Your task to perform on an android device: check data usage Image 0: 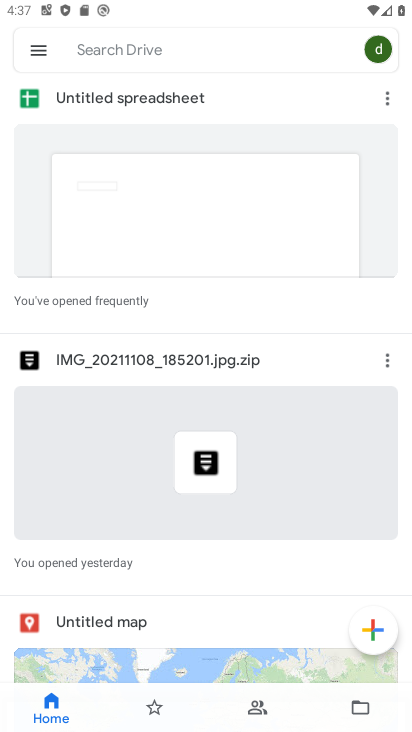
Step 0: press back button
Your task to perform on an android device: check data usage Image 1: 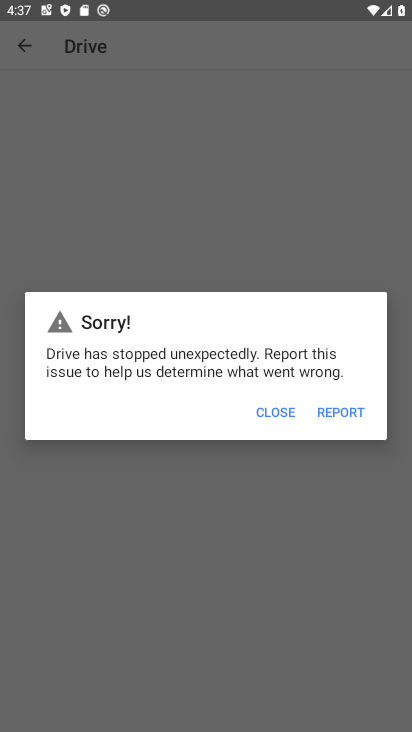
Step 1: press back button
Your task to perform on an android device: check data usage Image 2: 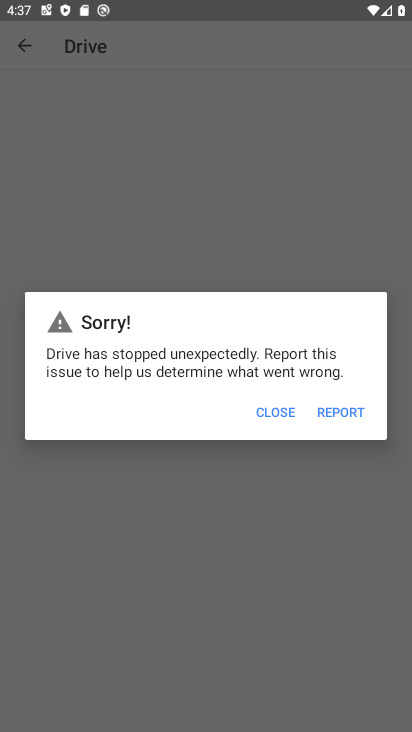
Step 2: press home button
Your task to perform on an android device: check data usage Image 3: 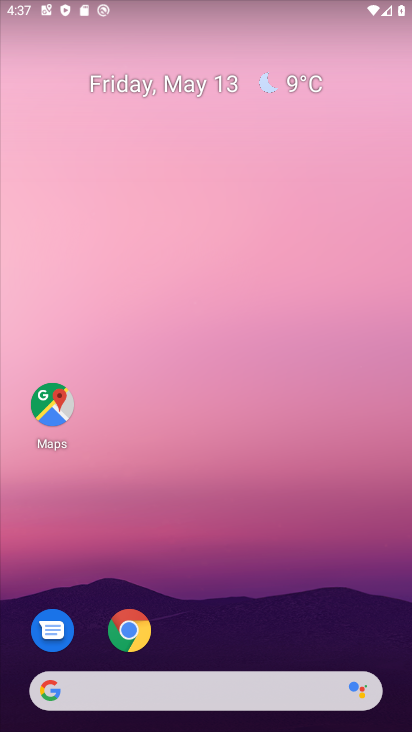
Step 3: drag from (283, 586) to (209, 105)
Your task to perform on an android device: check data usage Image 4: 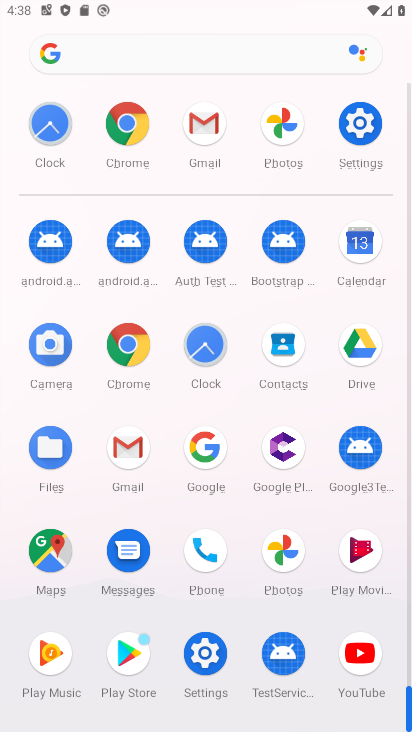
Step 4: click (203, 652)
Your task to perform on an android device: check data usage Image 5: 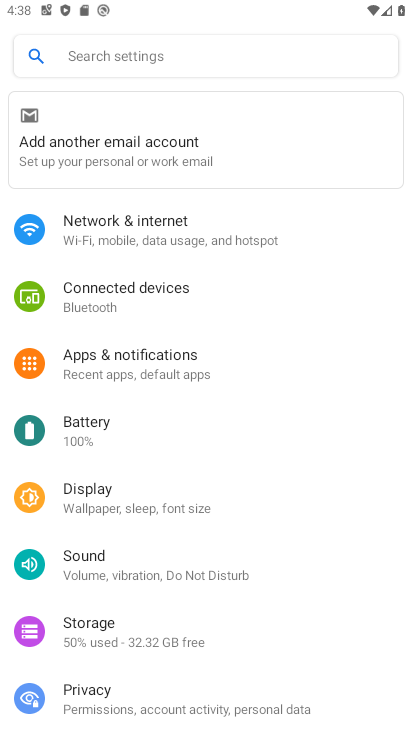
Step 5: click (172, 230)
Your task to perform on an android device: check data usage Image 6: 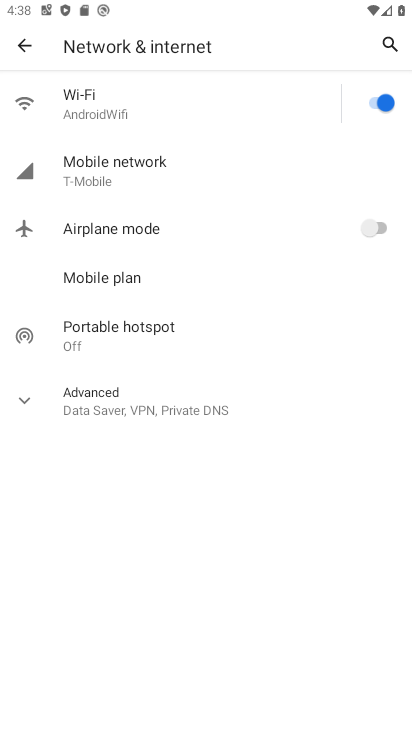
Step 6: click (128, 170)
Your task to perform on an android device: check data usage Image 7: 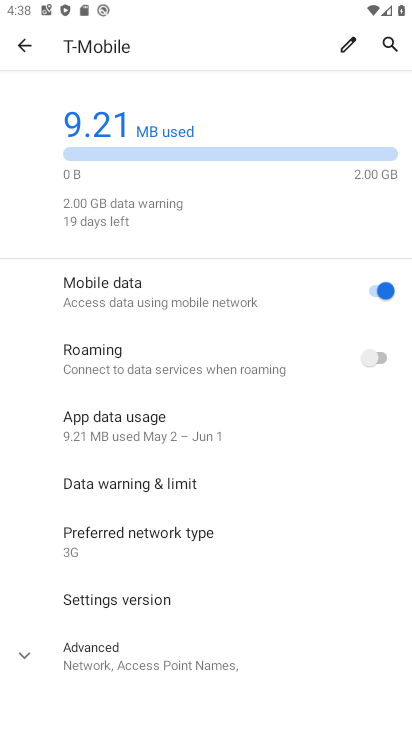
Step 7: task complete